Your task to perform on an android device: open chrome and create a bookmark for the current page Image 0: 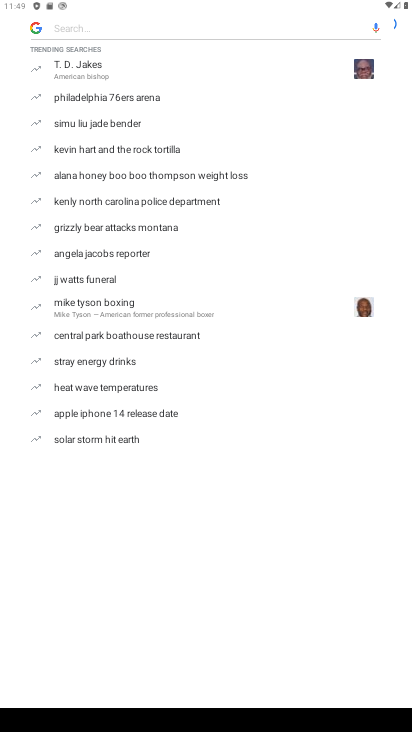
Step 0: press home button
Your task to perform on an android device: open chrome and create a bookmark for the current page Image 1: 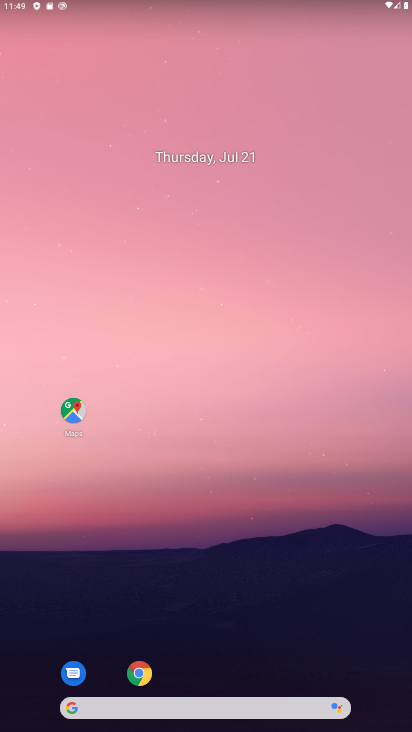
Step 1: click (128, 676)
Your task to perform on an android device: open chrome and create a bookmark for the current page Image 2: 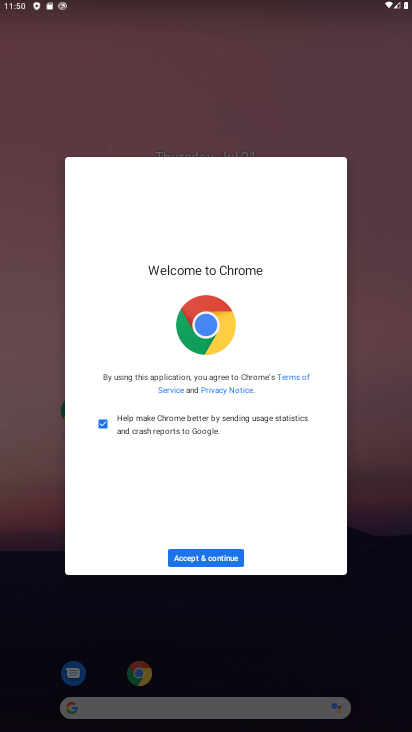
Step 2: click (193, 557)
Your task to perform on an android device: open chrome and create a bookmark for the current page Image 3: 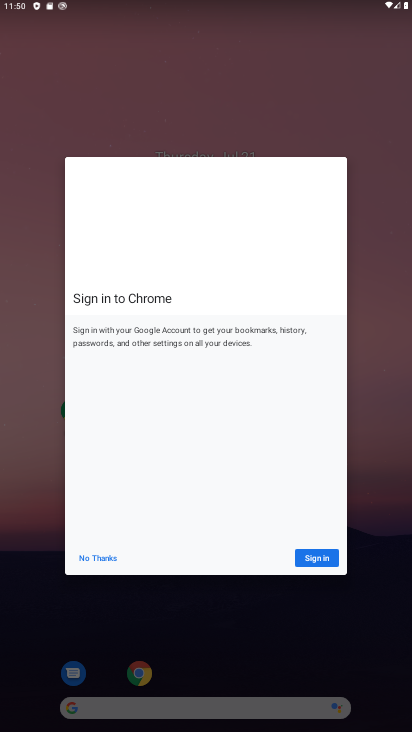
Step 3: click (329, 557)
Your task to perform on an android device: open chrome and create a bookmark for the current page Image 4: 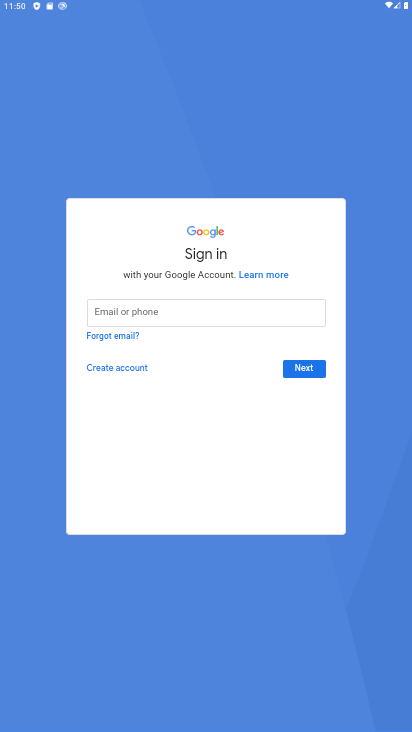
Step 4: click (140, 306)
Your task to perform on an android device: open chrome and create a bookmark for the current page Image 5: 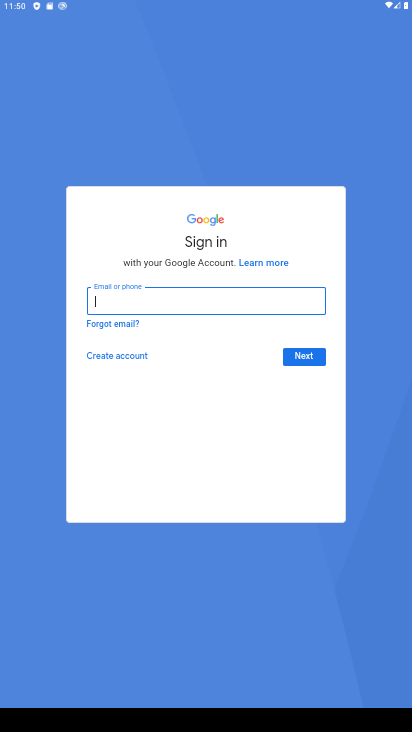
Step 5: task complete